Your task to perform on an android device: turn on notifications settings in the gmail app Image 0: 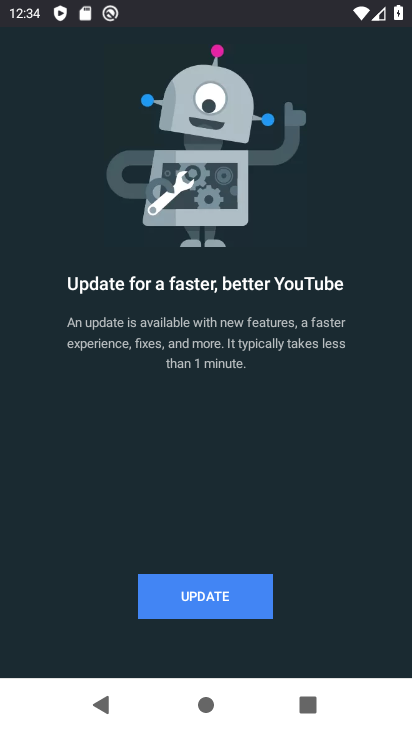
Step 0: press home button
Your task to perform on an android device: turn on notifications settings in the gmail app Image 1: 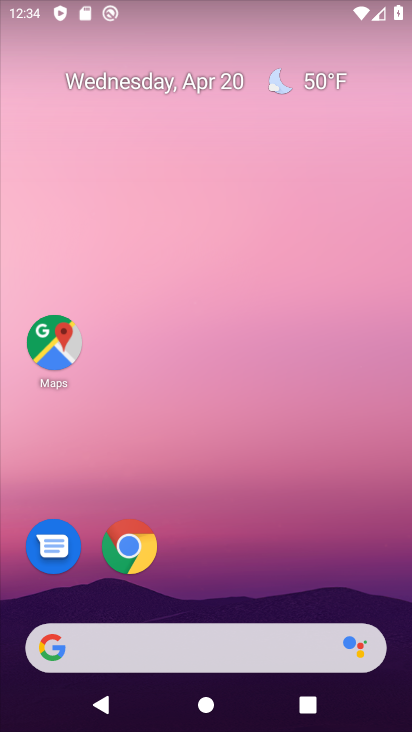
Step 1: drag from (200, 573) to (297, 60)
Your task to perform on an android device: turn on notifications settings in the gmail app Image 2: 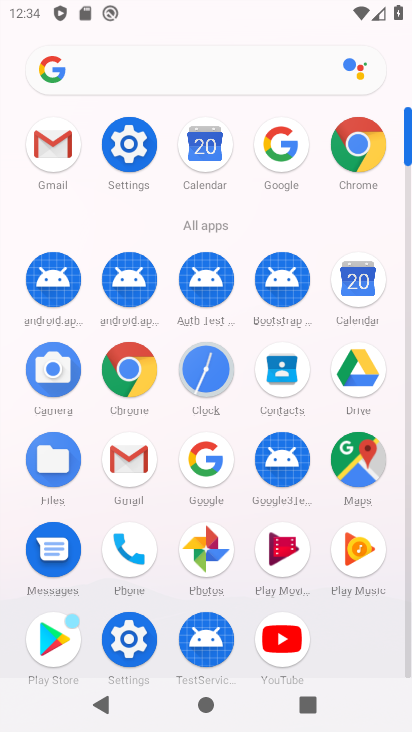
Step 2: click (131, 140)
Your task to perform on an android device: turn on notifications settings in the gmail app Image 3: 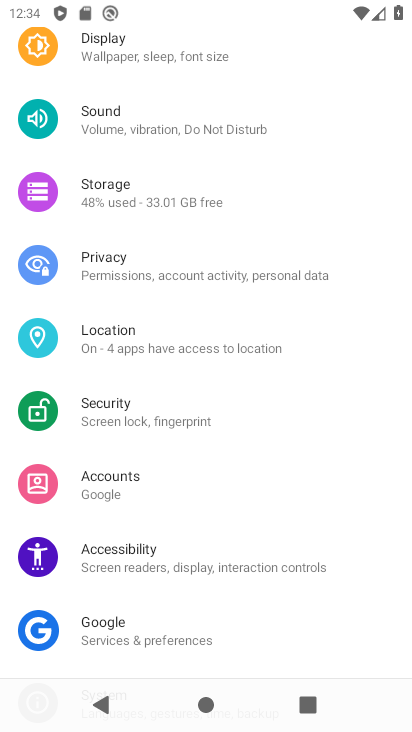
Step 3: drag from (209, 97) to (143, 531)
Your task to perform on an android device: turn on notifications settings in the gmail app Image 4: 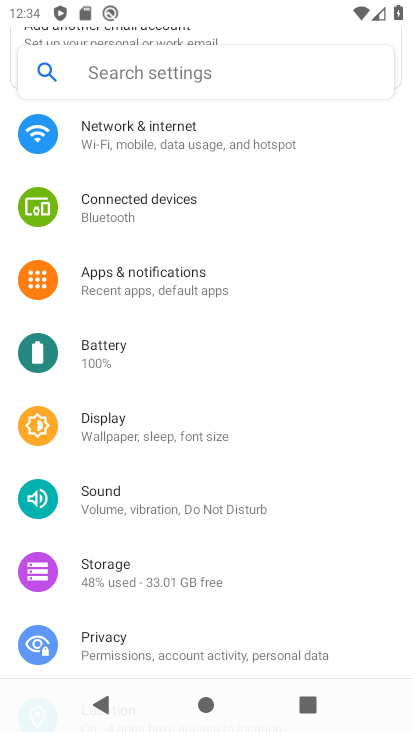
Step 4: click (160, 275)
Your task to perform on an android device: turn on notifications settings in the gmail app Image 5: 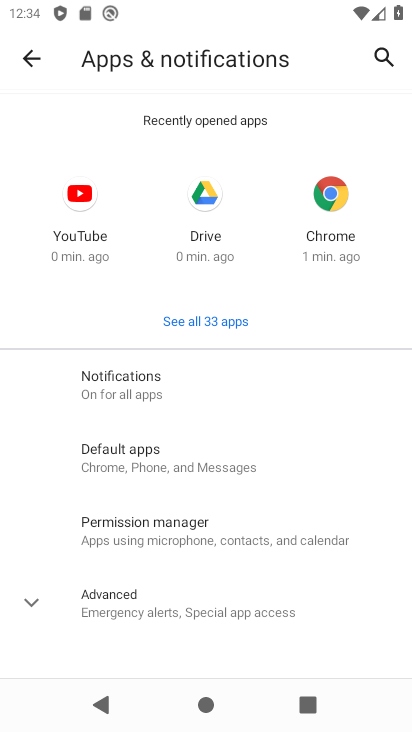
Step 5: click (182, 379)
Your task to perform on an android device: turn on notifications settings in the gmail app Image 6: 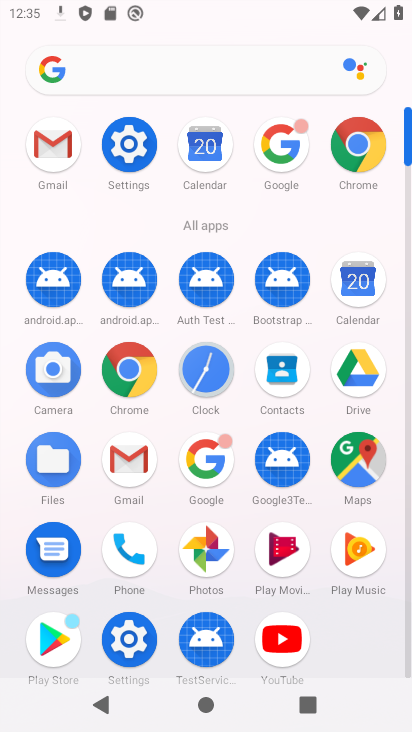
Step 6: click (146, 448)
Your task to perform on an android device: turn on notifications settings in the gmail app Image 7: 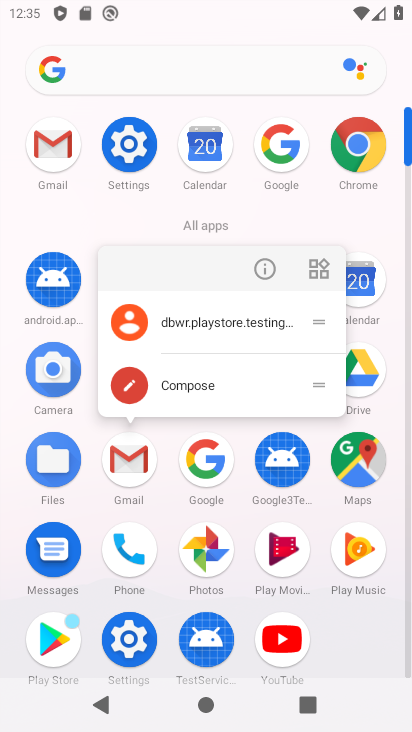
Step 7: click (268, 264)
Your task to perform on an android device: turn on notifications settings in the gmail app Image 8: 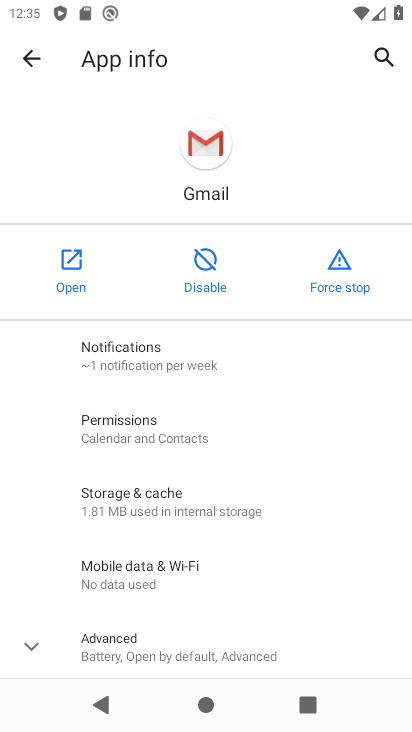
Step 8: click (249, 340)
Your task to perform on an android device: turn on notifications settings in the gmail app Image 9: 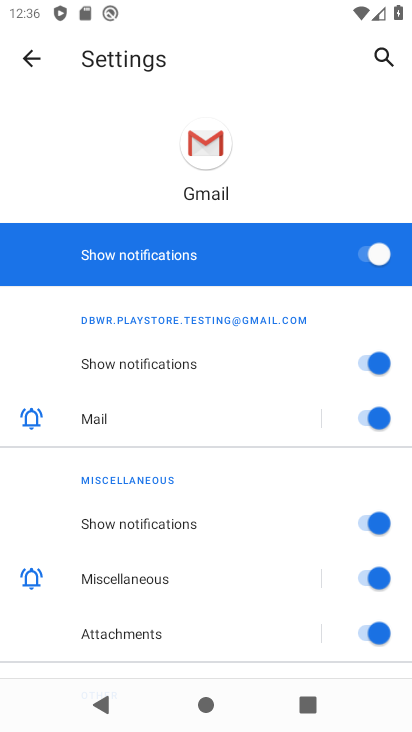
Step 9: task complete